Your task to perform on an android device: set an alarm Image 0: 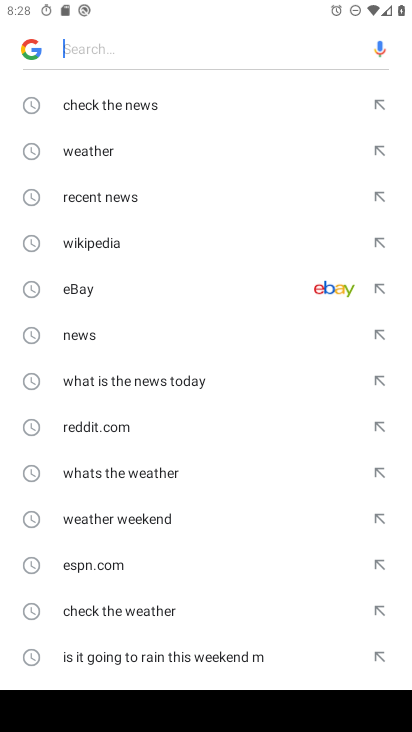
Step 0: press home button
Your task to perform on an android device: set an alarm Image 1: 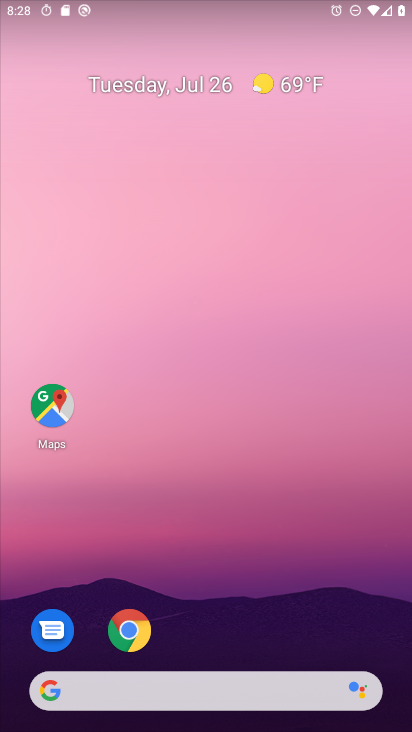
Step 1: drag from (262, 593) to (280, 95)
Your task to perform on an android device: set an alarm Image 2: 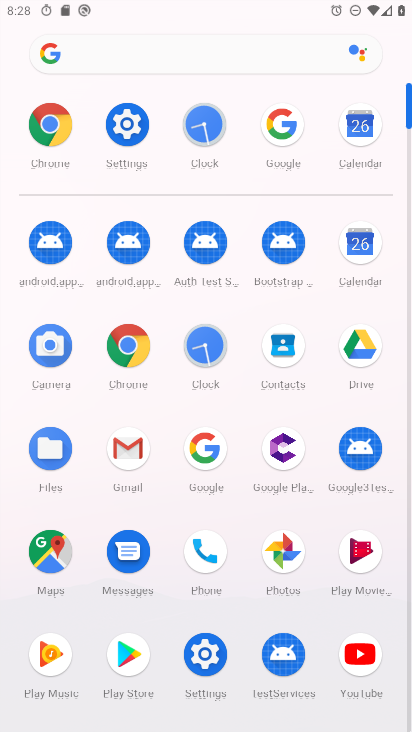
Step 2: click (203, 355)
Your task to perform on an android device: set an alarm Image 3: 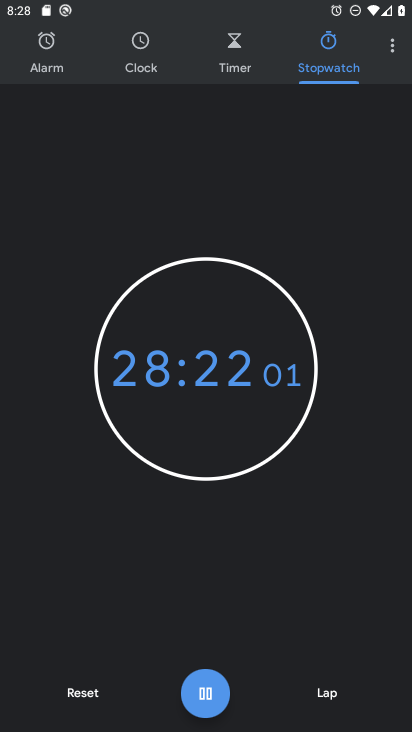
Step 3: click (48, 70)
Your task to perform on an android device: set an alarm Image 4: 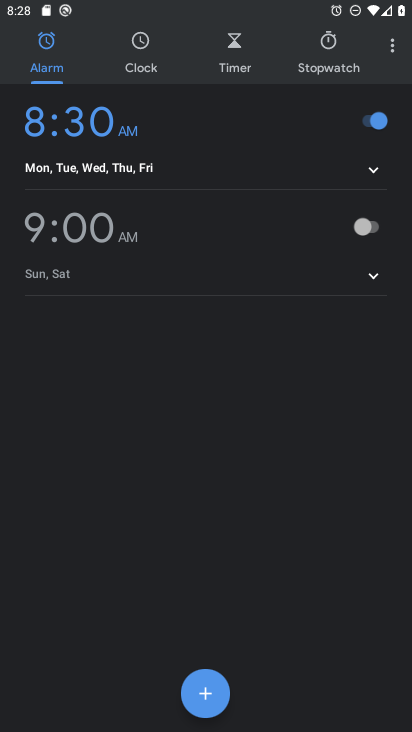
Step 4: click (362, 233)
Your task to perform on an android device: set an alarm Image 5: 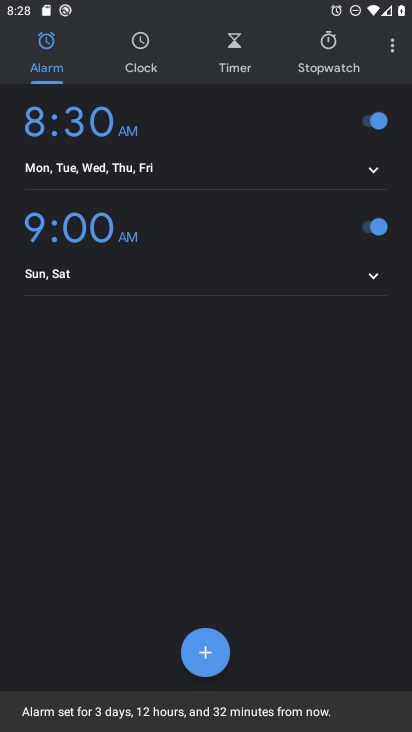
Step 5: task complete